Your task to perform on an android device: Open the calendar app, open the side menu, and click the "Day" option Image 0: 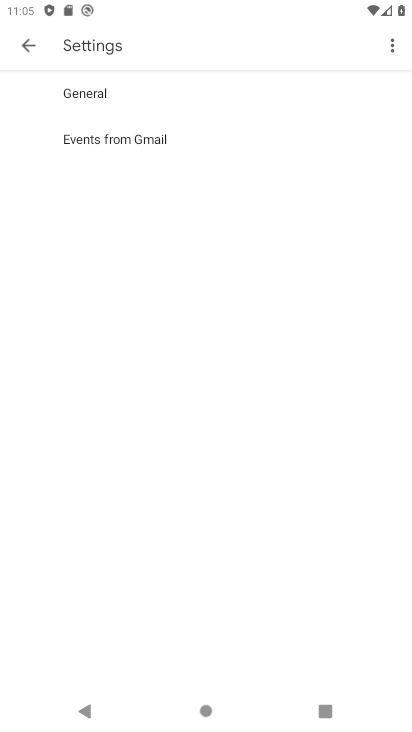
Step 0: press home button
Your task to perform on an android device: Open the calendar app, open the side menu, and click the "Day" option Image 1: 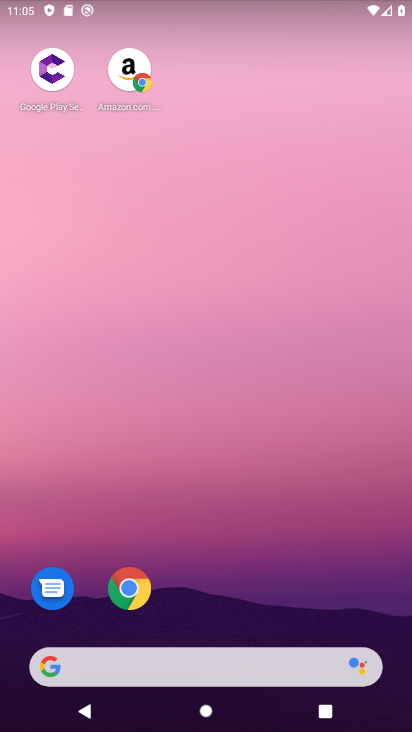
Step 1: drag from (269, 704) to (350, 122)
Your task to perform on an android device: Open the calendar app, open the side menu, and click the "Day" option Image 2: 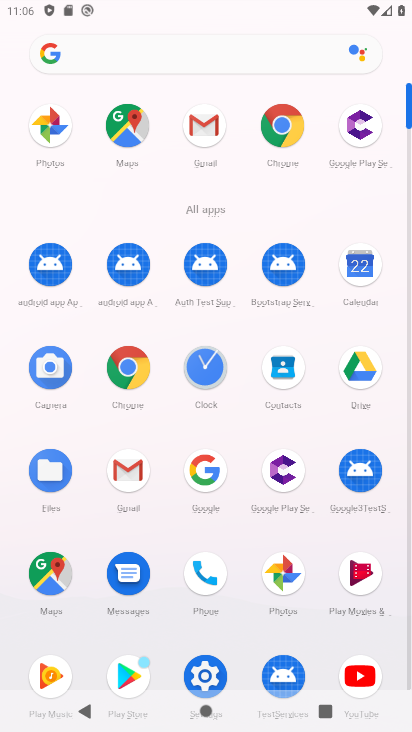
Step 2: click (361, 272)
Your task to perform on an android device: Open the calendar app, open the side menu, and click the "Day" option Image 3: 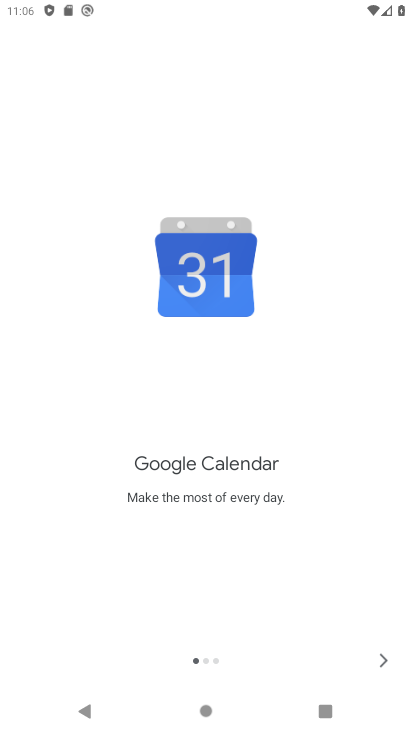
Step 3: click (374, 657)
Your task to perform on an android device: Open the calendar app, open the side menu, and click the "Day" option Image 4: 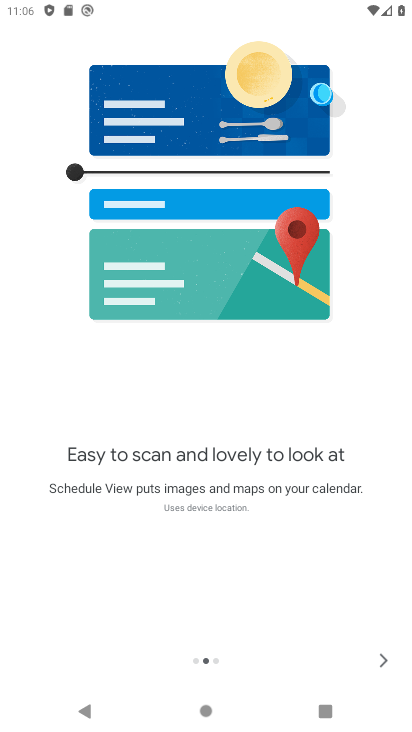
Step 4: click (385, 670)
Your task to perform on an android device: Open the calendar app, open the side menu, and click the "Day" option Image 5: 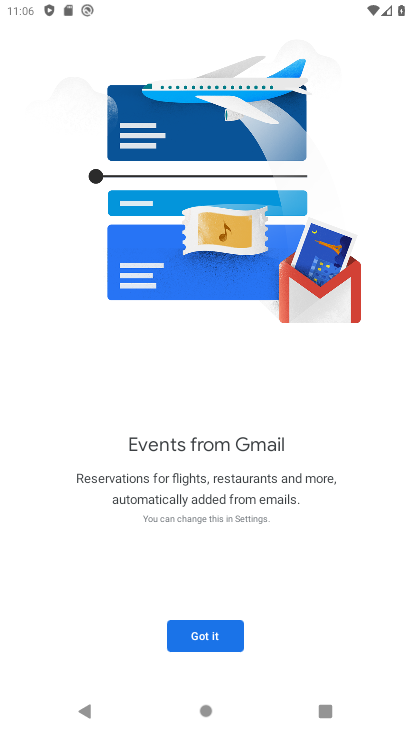
Step 5: click (200, 637)
Your task to perform on an android device: Open the calendar app, open the side menu, and click the "Day" option Image 6: 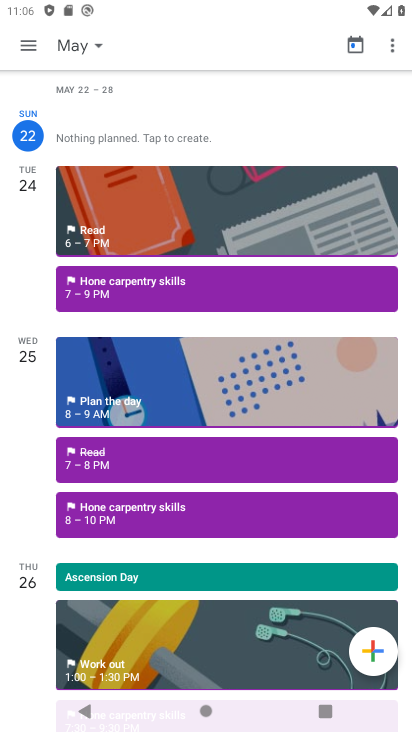
Step 6: click (28, 50)
Your task to perform on an android device: Open the calendar app, open the side menu, and click the "Day" option Image 7: 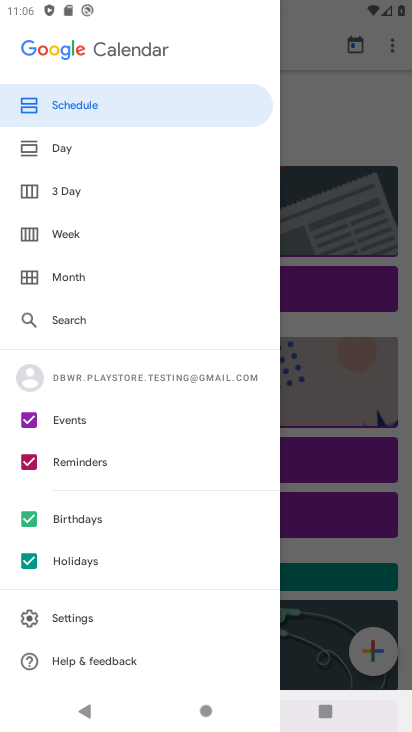
Step 7: click (87, 152)
Your task to perform on an android device: Open the calendar app, open the side menu, and click the "Day" option Image 8: 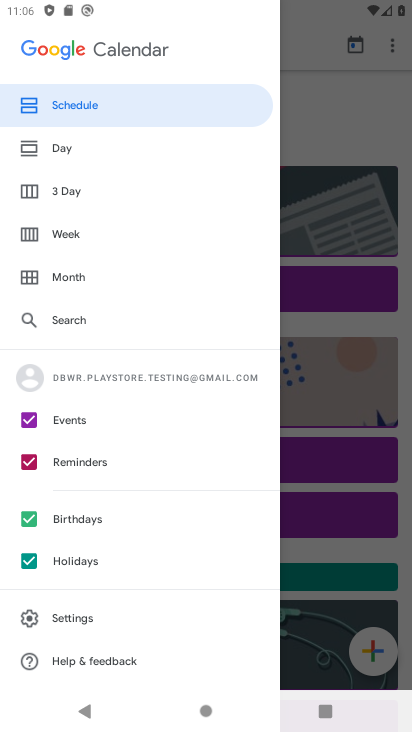
Step 8: click (88, 153)
Your task to perform on an android device: Open the calendar app, open the side menu, and click the "Day" option Image 9: 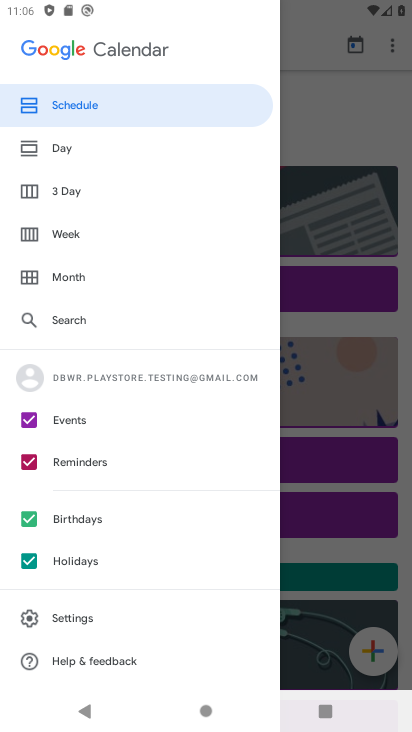
Step 9: click (57, 144)
Your task to perform on an android device: Open the calendar app, open the side menu, and click the "Day" option Image 10: 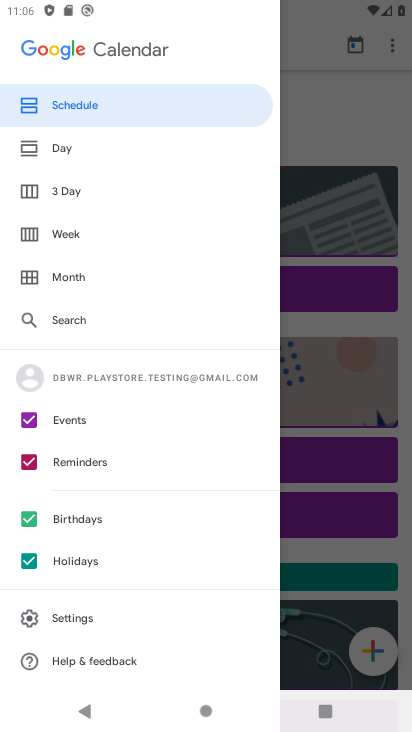
Step 10: click (57, 144)
Your task to perform on an android device: Open the calendar app, open the side menu, and click the "Day" option Image 11: 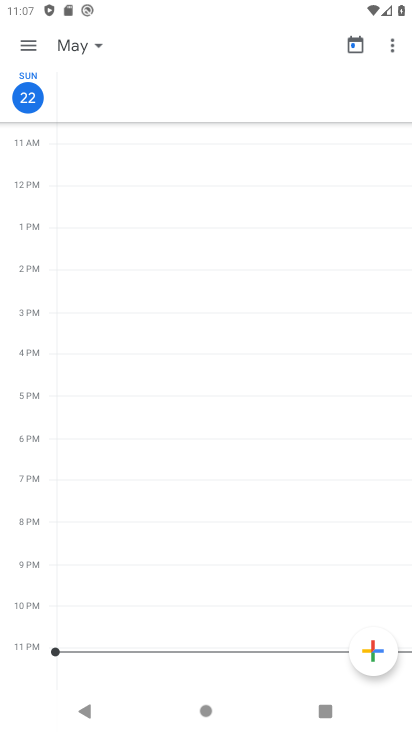
Step 11: task complete